Your task to perform on an android device: Open internet settings Image 0: 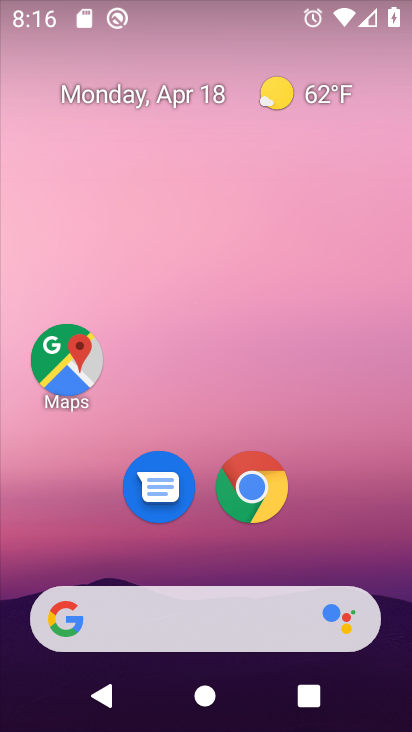
Step 0: press home button
Your task to perform on an android device: Open internet settings Image 1: 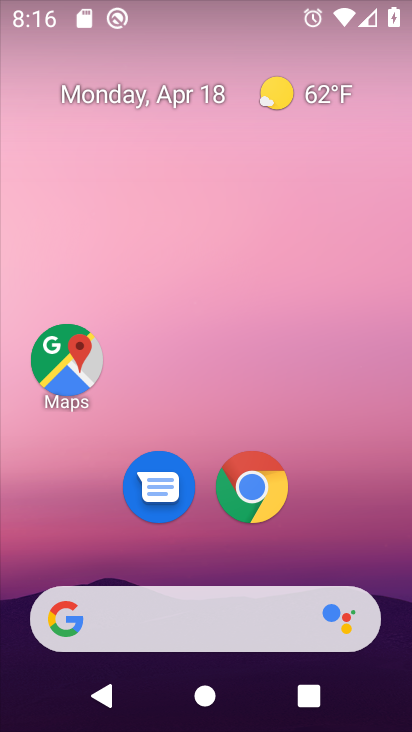
Step 1: drag from (203, 552) to (223, 14)
Your task to perform on an android device: Open internet settings Image 2: 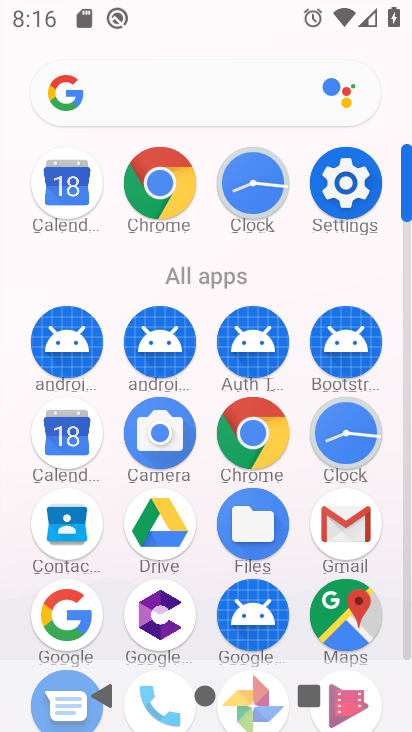
Step 2: click (344, 181)
Your task to perform on an android device: Open internet settings Image 3: 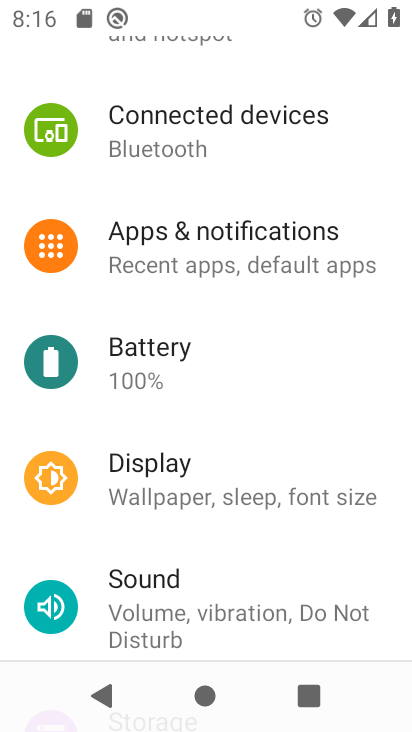
Step 3: drag from (232, 137) to (236, 623)
Your task to perform on an android device: Open internet settings Image 4: 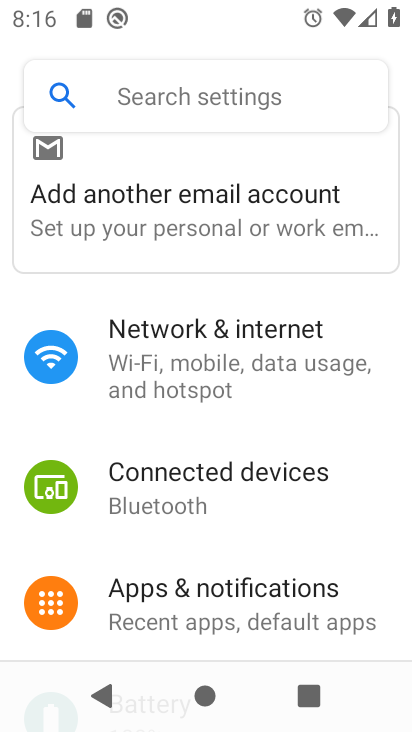
Step 4: click (189, 348)
Your task to perform on an android device: Open internet settings Image 5: 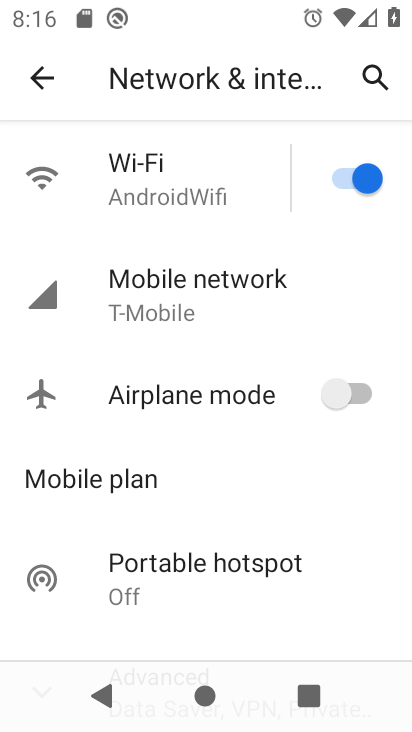
Step 5: drag from (187, 547) to (208, 122)
Your task to perform on an android device: Open internet settings Image 6: 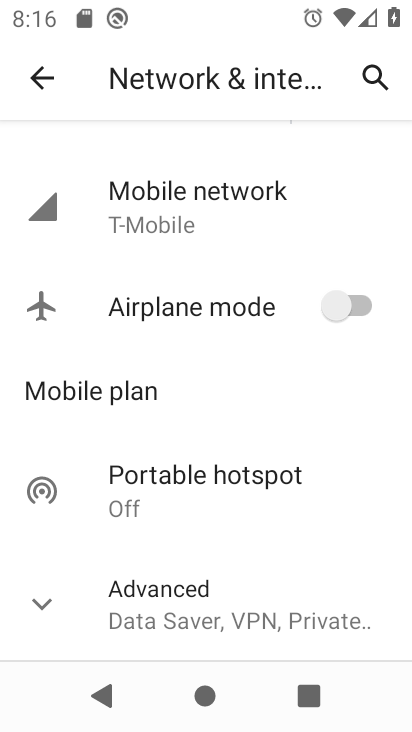
Step 6: click (40, 591)
Your task to perform on an android device: Open internet settings Image 7: 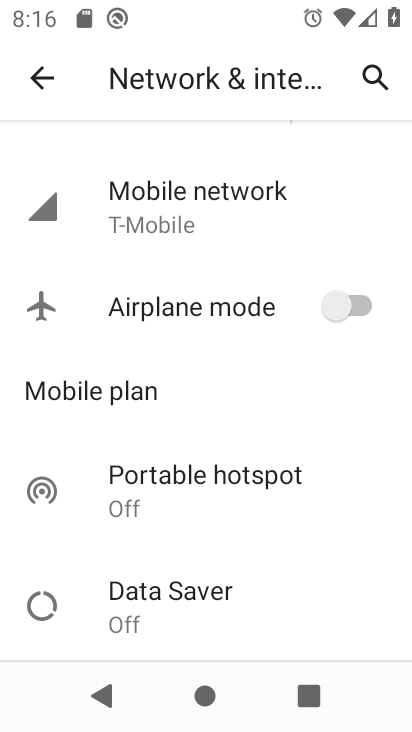
Step 7: task complete